Your task to perform on an android device: Go to ESPN.com Image 0: 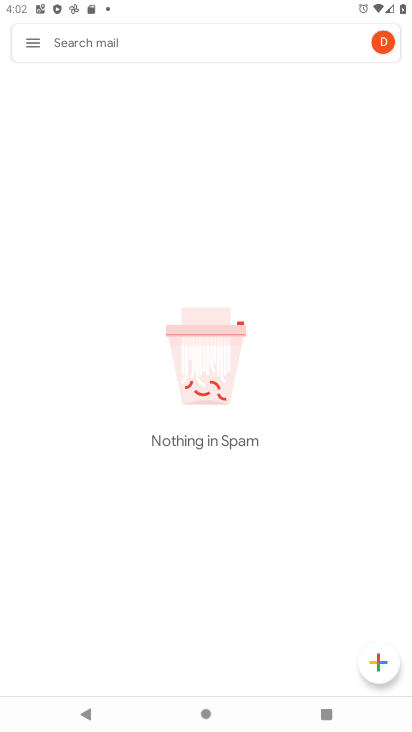
Step 0: press home button
Your task to perform on an android device: Go to ESPN.com Image 1: 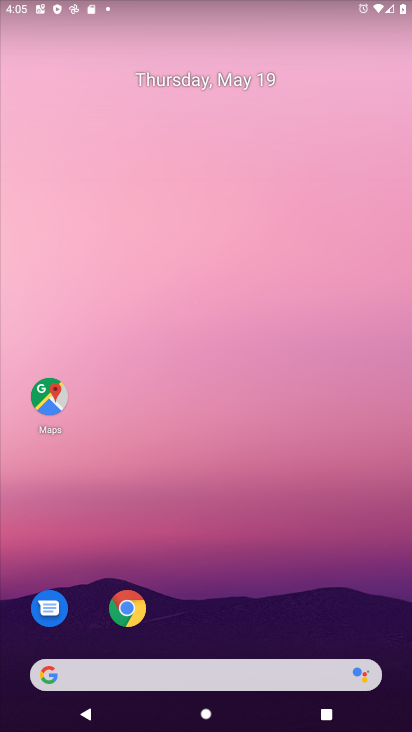
Step 1: click (128, 599)
Your task to perform on an android device: Go to ESPN.com Image 2: 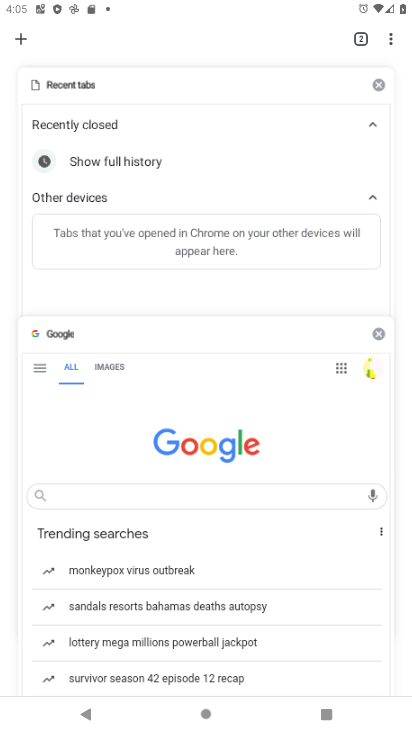
Step 2: click (18, 42)
Your task to perform on an android device: Go to ESPN.com Image 3: 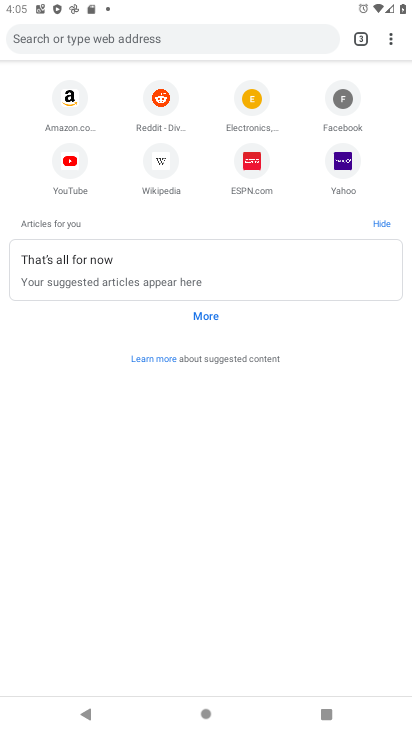
Step 3: click (150, 48)
Your task to perform on an android device: Go to ESPN.com Image 4: 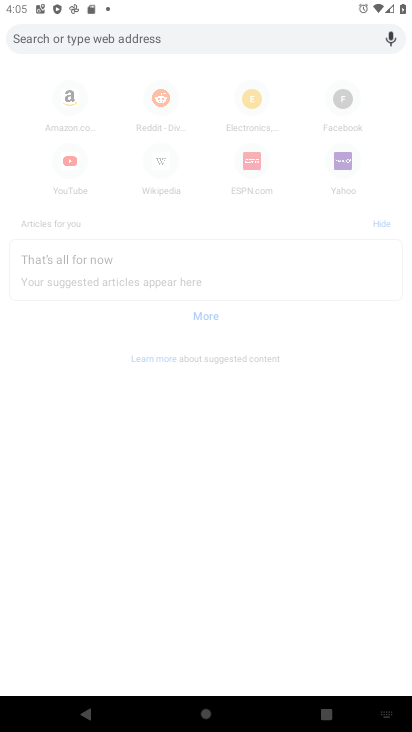
Step 4: task complete